Your task to perform on an android device: Open ESPN.com Image 0: 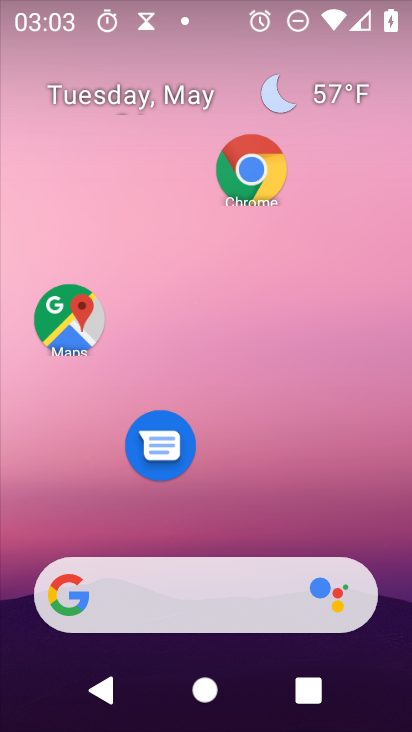
Step 0: click (258, 165)
Your task to perform on an android device: Open ESPN.com Image 1: 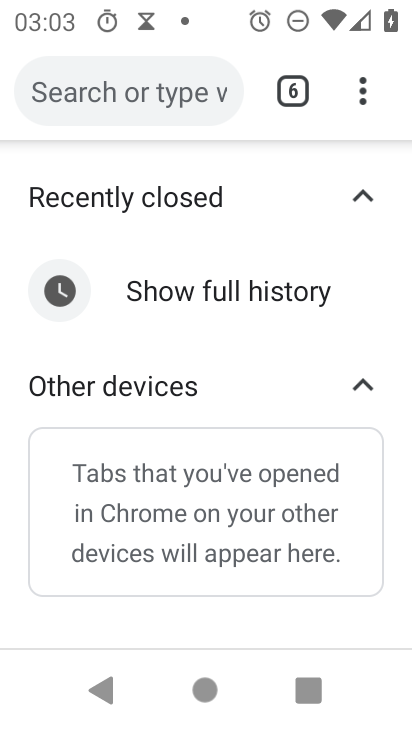
Step 1: click (359, 100)
Your task to perform on an android device: Open ESPN.com Image 2: 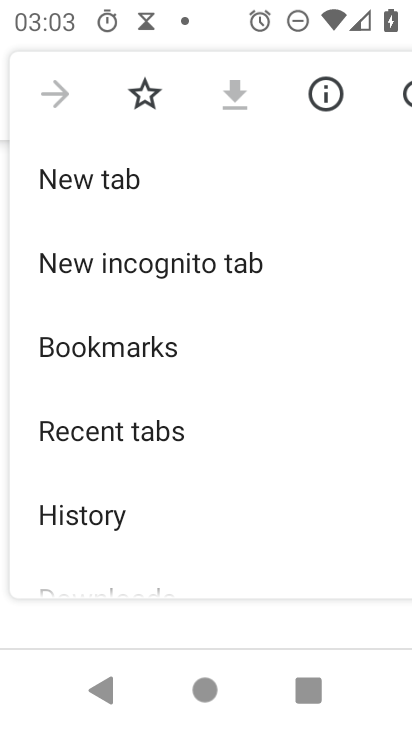
Step 2: click (60, 180)
Your task to perform on an android device: Open ESPN.com Image 3: 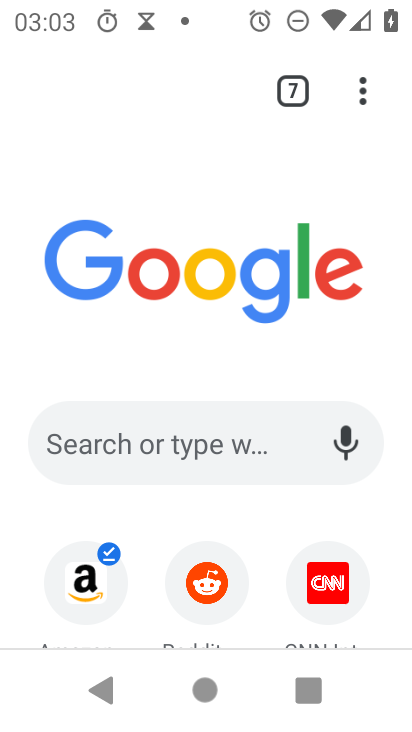
Step 3: drag from (259, 632) to (261, 412)
Your task to perform on an android device: Open ESPN.com Image 4: 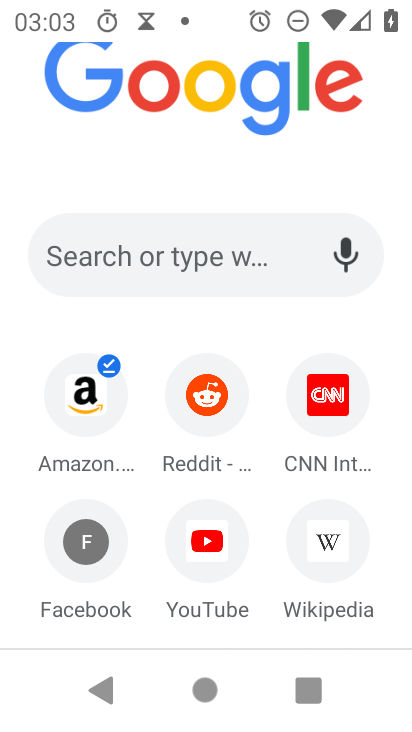
Step 4: click (185, 251)
Your task to perform on an android device: Open ESPN.com Image 5: 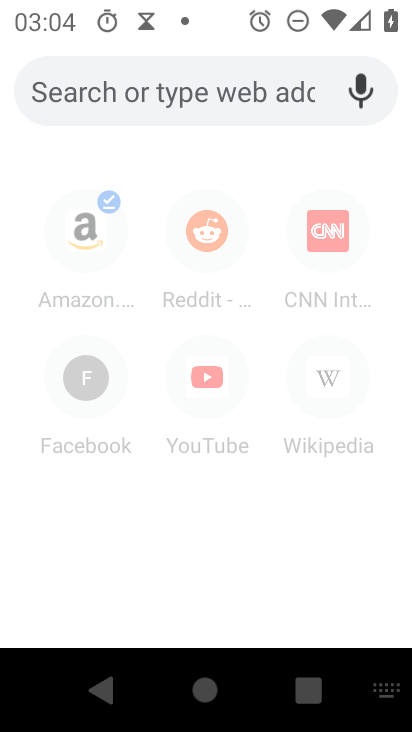
Step 5: type "ESPN.cpm"
Your task to perform on an android device: Open ESPN.com Image 6: 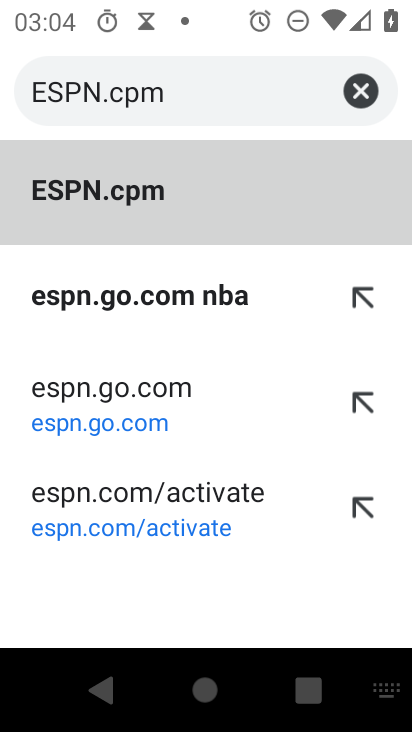
Step 6: click (96, 204)
Your task to perform on an android device: Open ESPN.com Image 7: 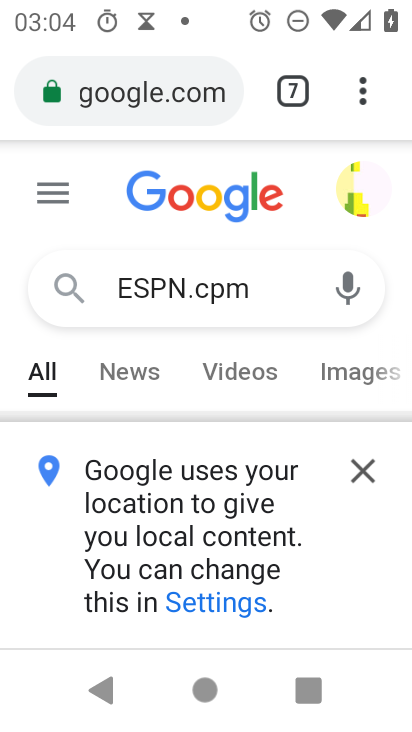
Step 7: click (364, 461)
Your task to perform on an android device: Open ESPN.com Image 8: 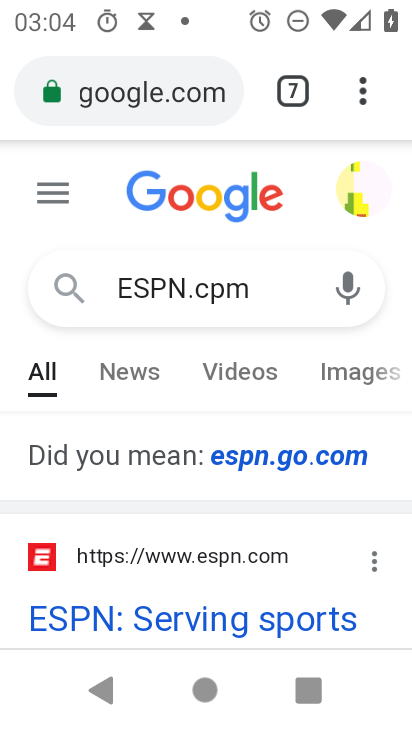
Step 8: click (161, 618)
Your task to perform on an android device: Open ESPN.com Image 9: 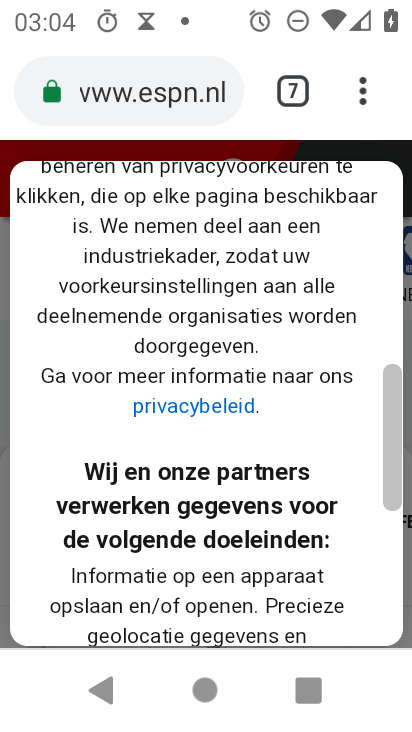
Step 9: drag from (313, 592) to (307, 190)
Your task to perform on an android device: Open ESPN.com Image 10: 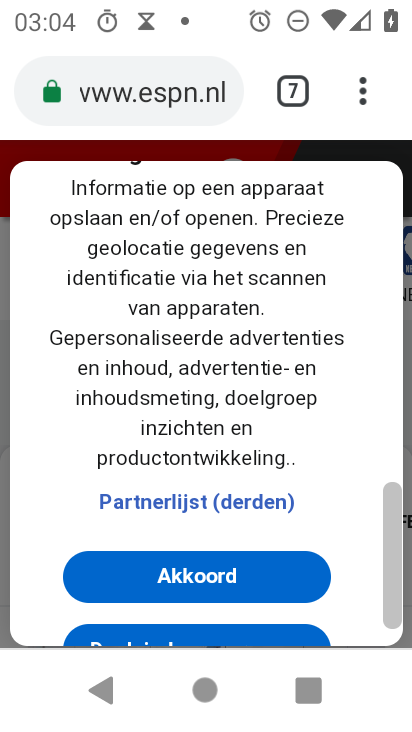
Step 10: click (213, 574)
Your task to perform on an android device: Open ESPN.com Image 11: 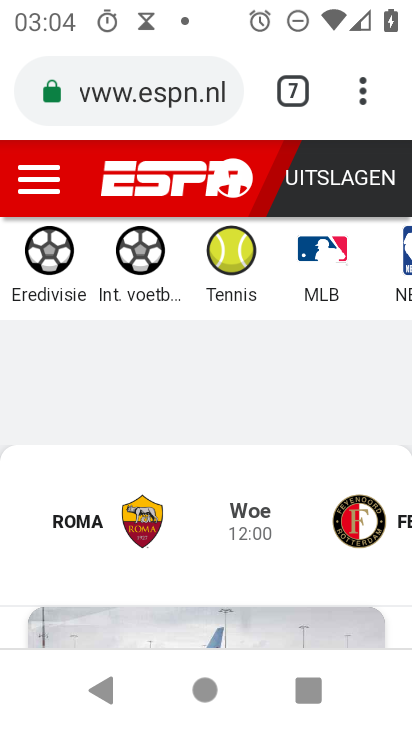
Step 11: task complete